Your task to perform on an android device: change alarm snooze length Image 0: 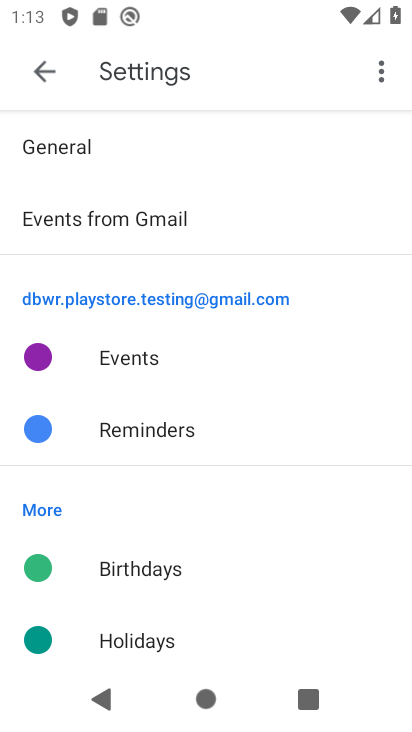
Step 0: press back button
Your task to perform on an android device: change alarm snooze length Image 1: 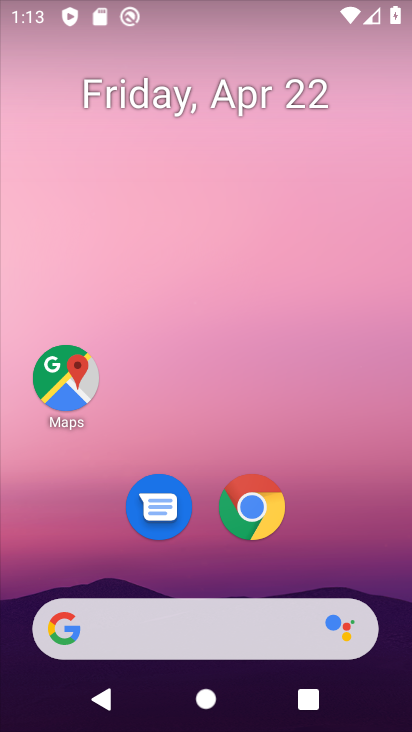
Step 1: drag from (199, 494) to (287, 108)
Your task to perform on an android device: change alarm snooze length Image 2: 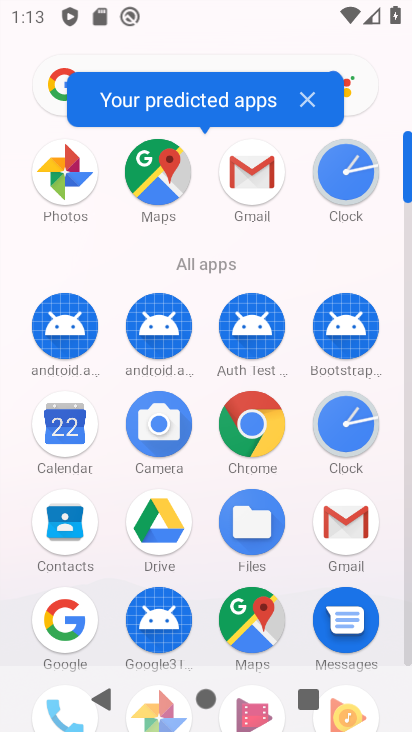
Step 2: click (343, 424)
Your task to perform on an android device: change alarm snooze length Image 3: 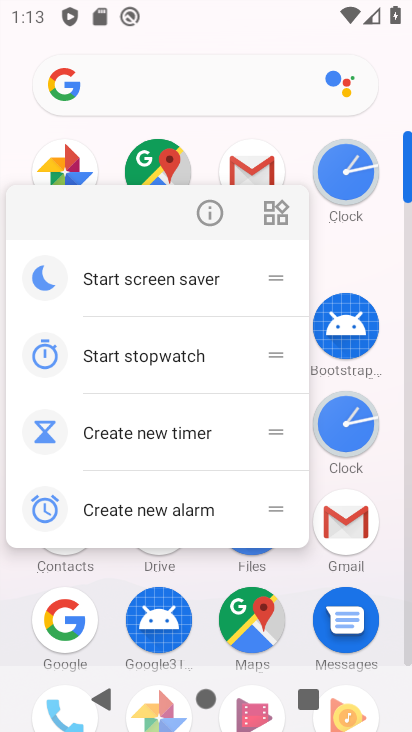
Step 3: click (362, 453)
Your task to perform on an android device: change alarm snooze length Image 4: 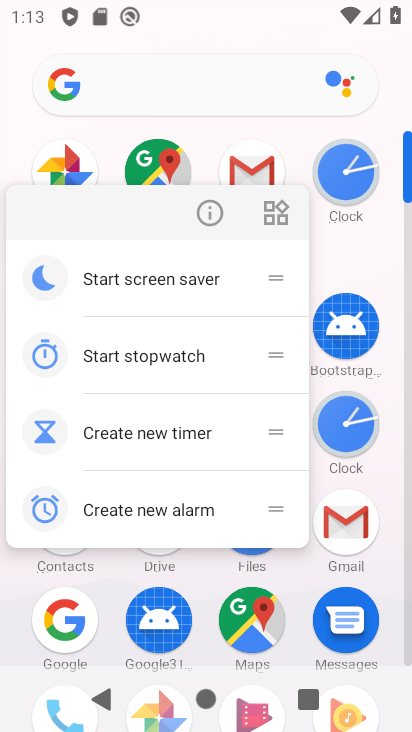
Step 4: click (354, 418)
Your task to perform on an android device: change alarm snooze length Image 5: 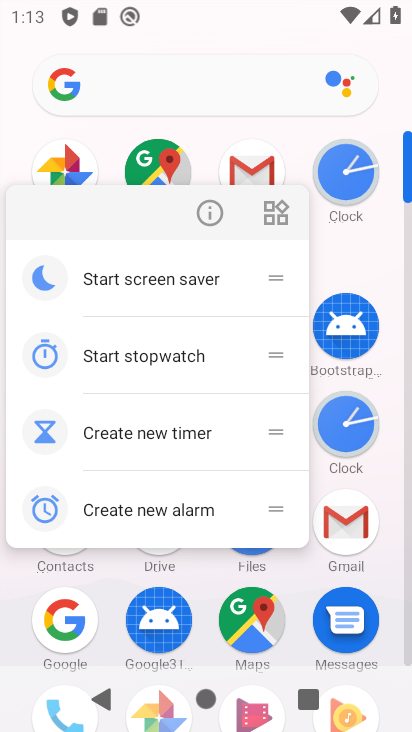
Step 5: click (348, 437)
Your task to perform on an android device: change alarm snooze length Image 6: 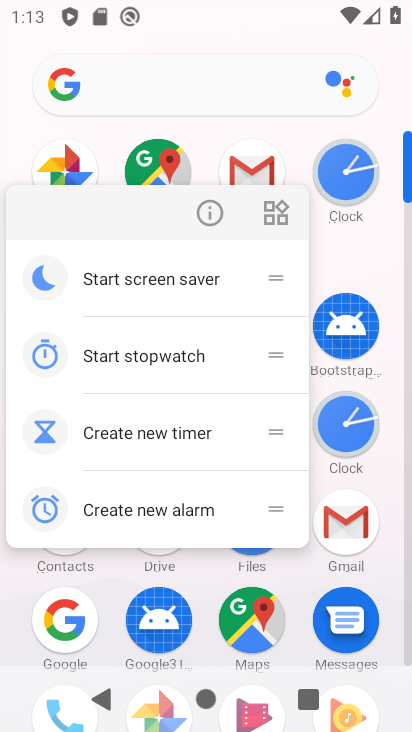
Step 6: click (348, 416)
Your task to perform on an android device: change alarm snooze length Image 7: 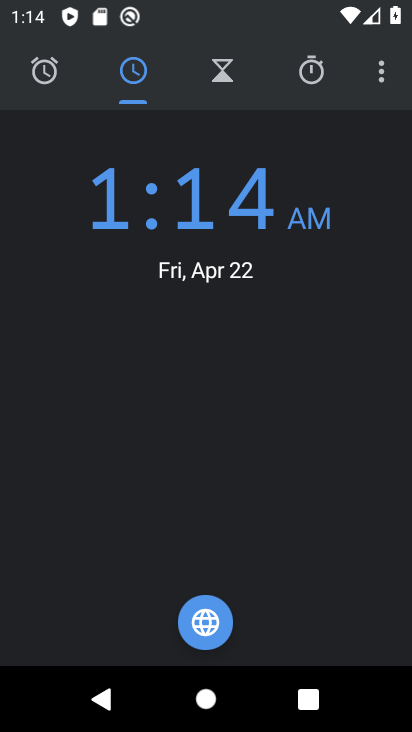
Step 7: click (374, 79)
Your task to perform on an android device: change alarm snooze length Image 8: 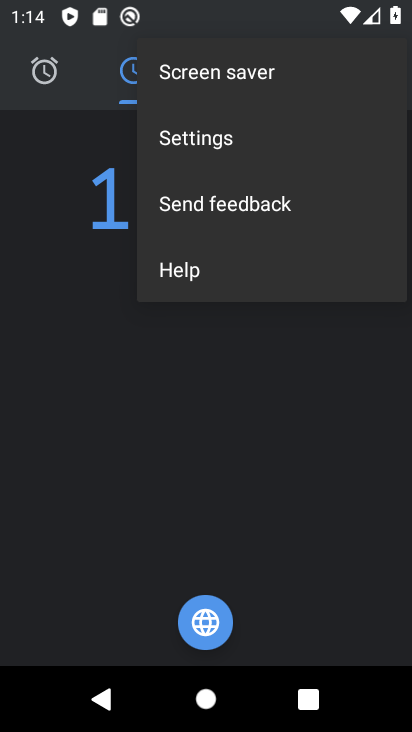
Step 8: click (304, 158)
Your task to perform on an android device: change alarm snooze length Image 9: 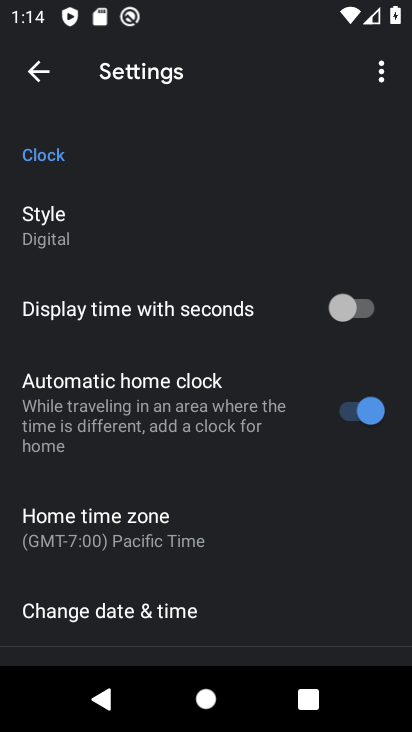
Step 9: drag from (221, 568) to (313, 131)
Your task to perform on an android device: change alarm snooze length Image 10: 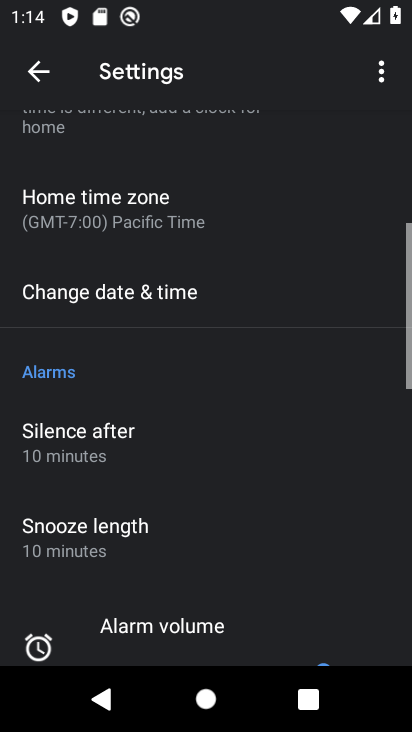
Step 10: drag from (174, 367) to (224, 165)
Your task to perform on an android device: change alarm snooze length Image 11: 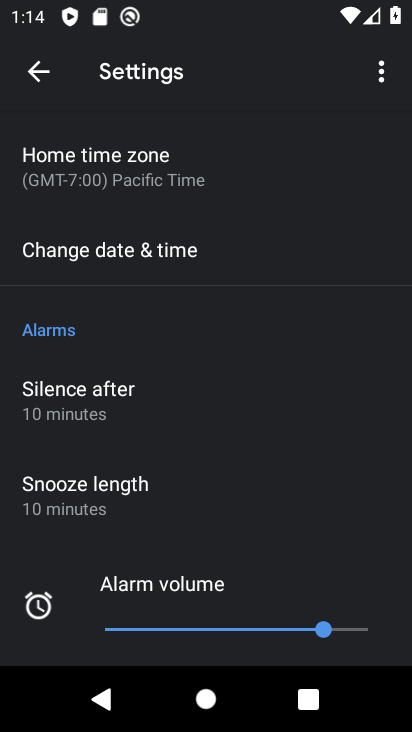
Step 11: drag from (178, 530) to (270, 166)
Your task to perform on an android device: change alarm snooze length Image 12: 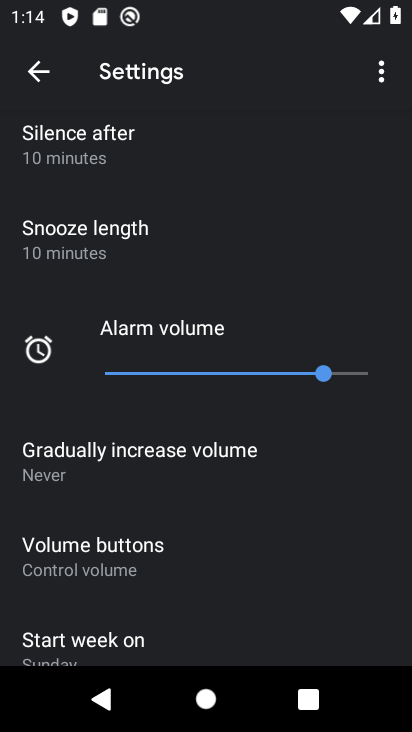
Step 12: click (167, 244)
Your task to perform on an android device: change alarm snooze length Image 13: 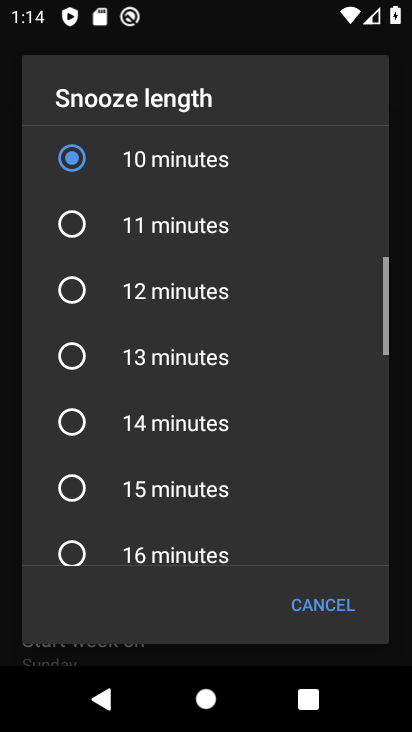
Step 13: click (213, 507)
Your task to perform on an android device: change alarm snooze length Image 14: 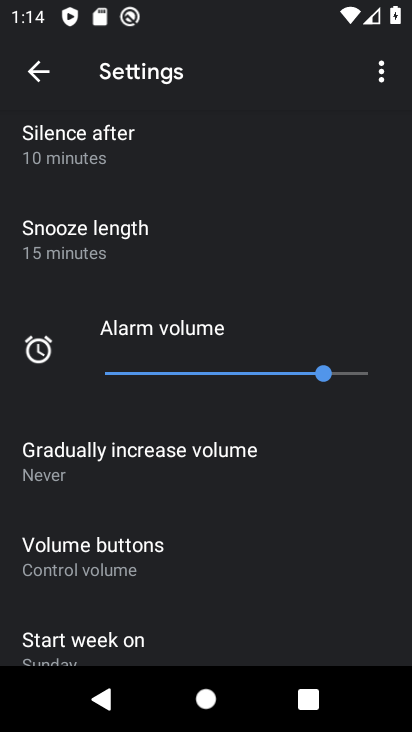
Step 14: task complete